Your task to perform on an android device: change text size in settings app Image 0: 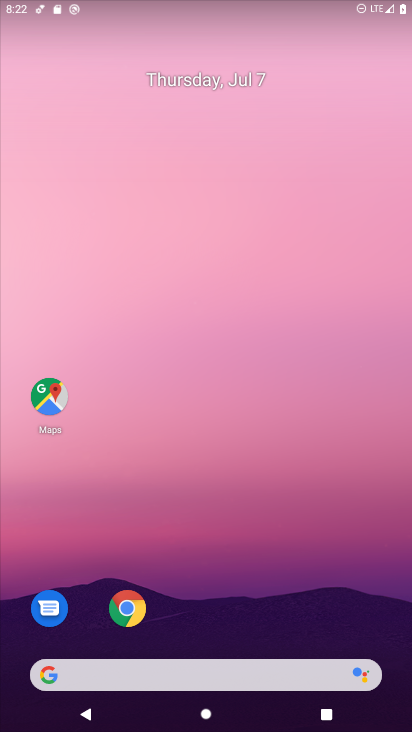
Step 0: drag from (396, 624) to (337, 102)
Your task to perform on an android device: change text size in settings app Image 1: 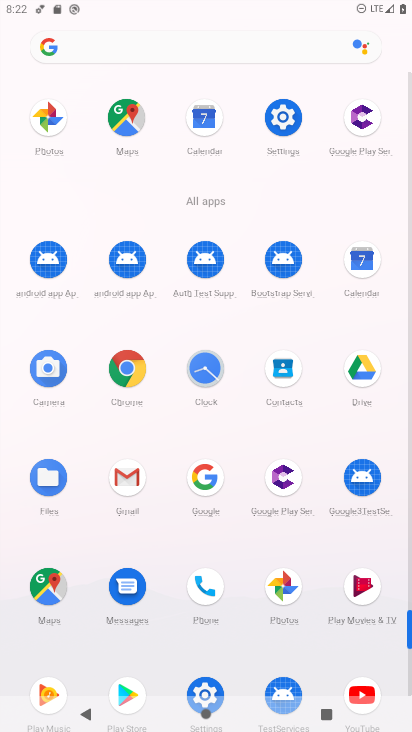
Step 1: click (411, 591)
Your task to perform on an android device: change text size in settings app Image 2: 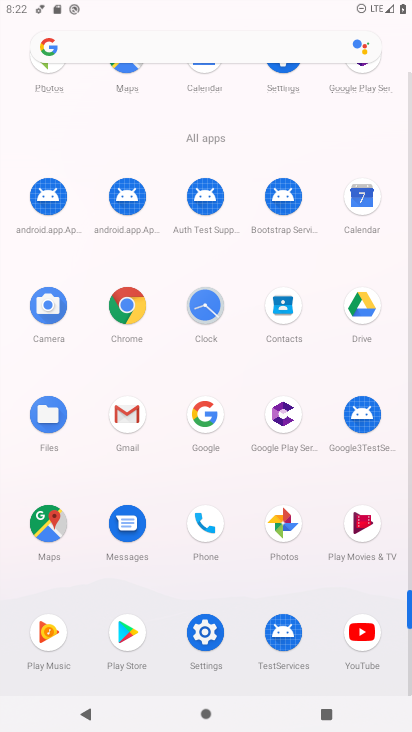
Step 2: click (204, 632)
Your task to perform on an android device: change text size in settings app Image 3: 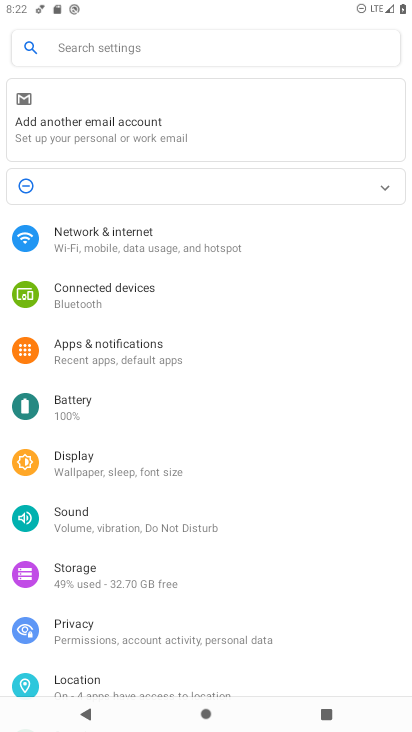
Step 3: click (73, 459)
Your task to perform on an android device: change text size in settings app Image 4: 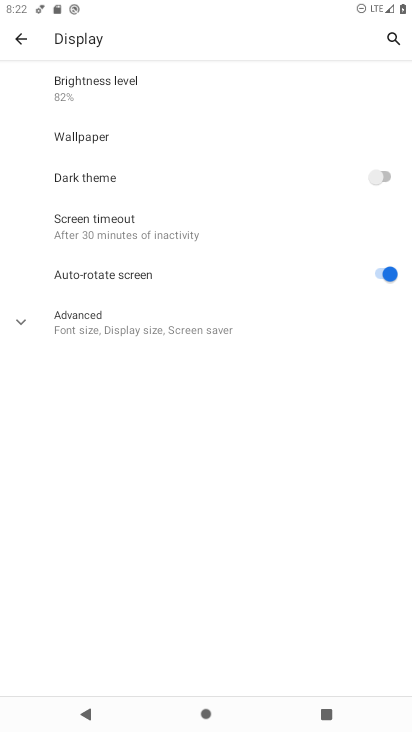
Step 4: click (71, 321)
Your task to perform on an android device: change text size in settings app Image 5: 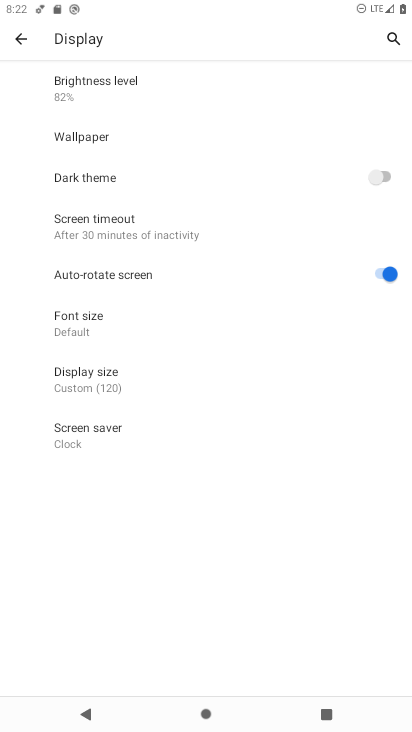
Step 5: click (68, 322)
Your task to perform on an android device: change text size in settings app Image 6: 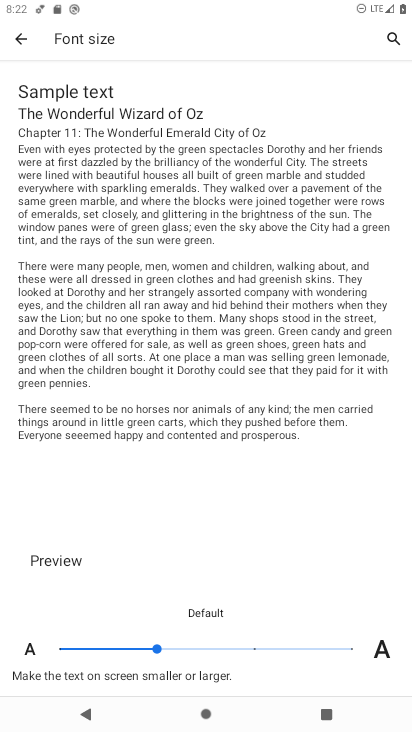
Step 6: click (348, 650)
Your task to perform on an android device: change text size in settings app Image 7: 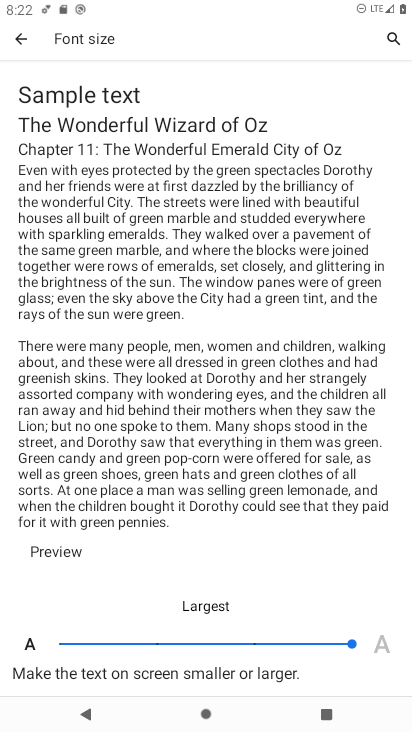
Step 7: task complete